Your task to perform on an android device: check data usage Image 0: 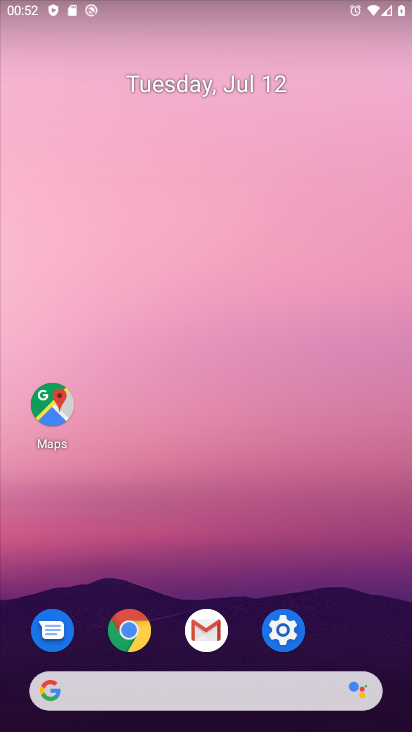
Step 0: click (288, 639)
Your task to perform on an android device: check data usage Image 1: 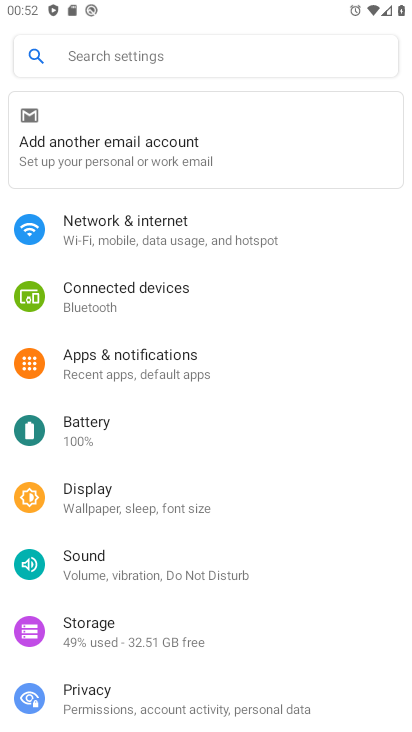
Step 1: click (117, 64)
Your task to perform on an android device: check data usage Image 2: 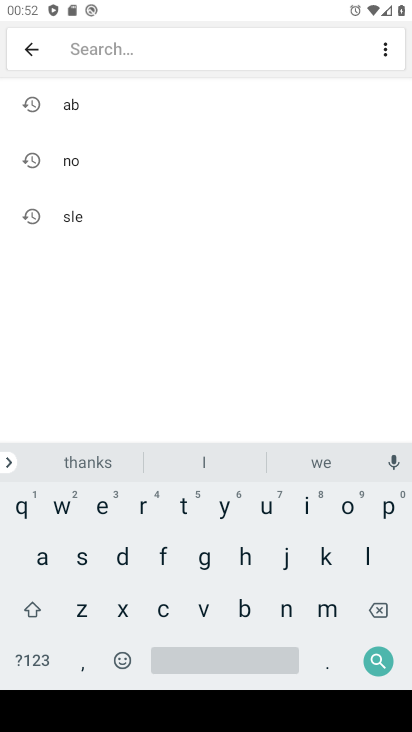
Step 2: click (122, 555)
Your task to perform on an android device: check data usage Image 3: 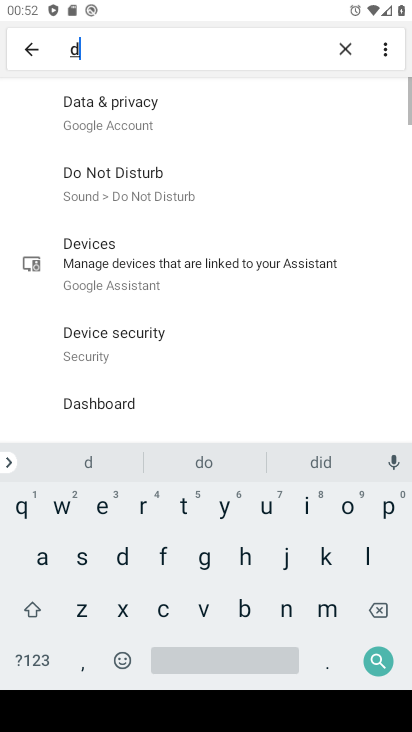
Step 3: click (43, 560)
Your task to perform on an android device: check data usage Image 4: 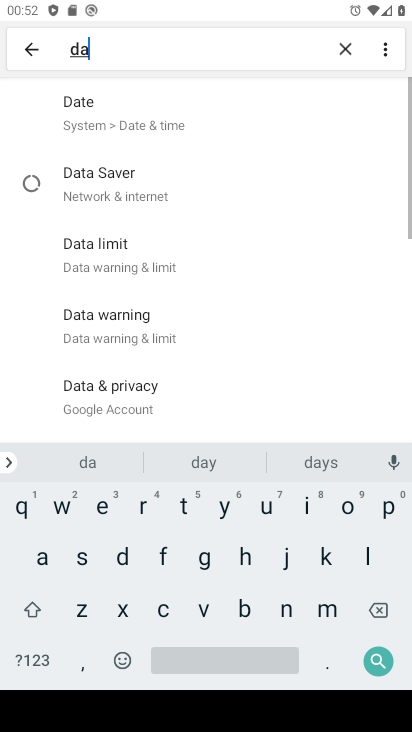
Step 4: click (187, 506)
Your task to perform on an android device: check data usage Image 5: 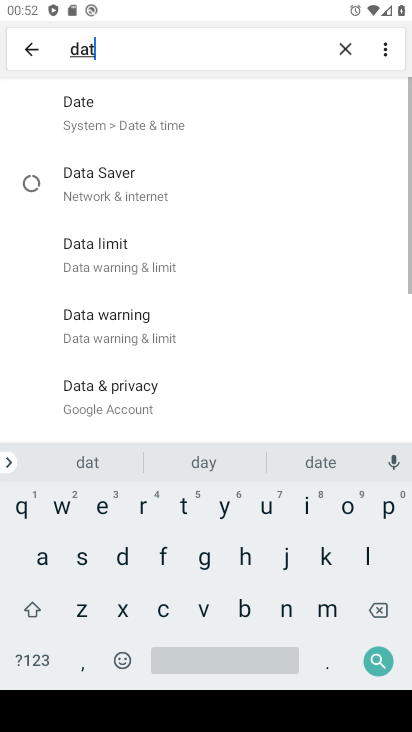
Step 5: click (48, 555)
Your task to perform on an android device: check data usage Image 6: 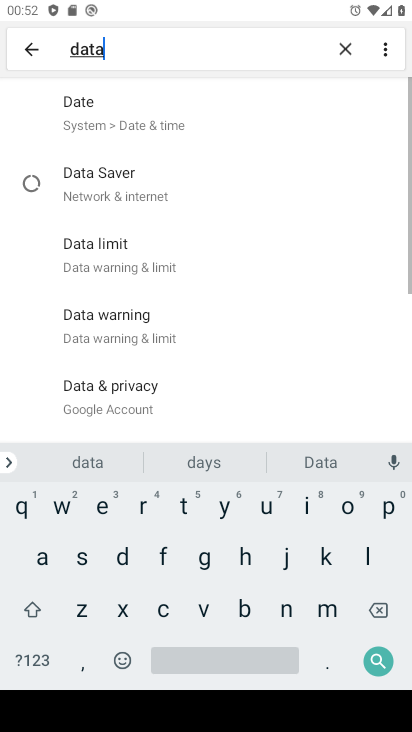
Step 6: click (48, 555)
Your task to perform on an android device: check data usage Image 7: 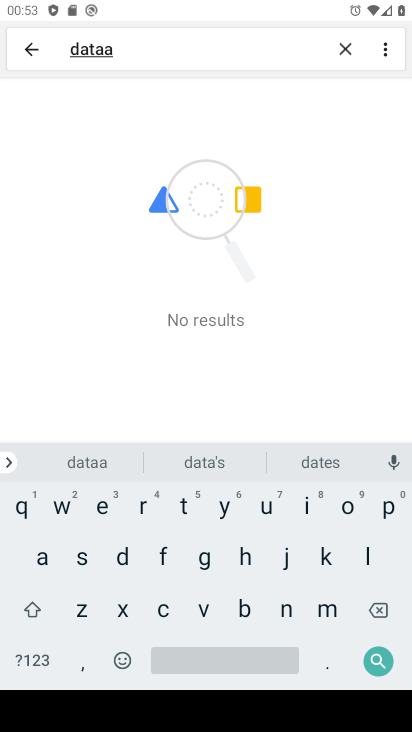
Step 7: click (378, 616)
Your task to perform on an android device: check data usage Image 8: 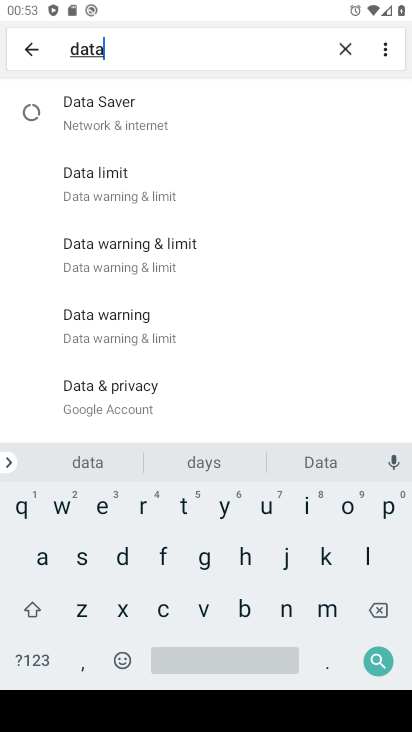
Step 8: click (239, 656)
Your task to perform on an android device: check data usage Image 9: 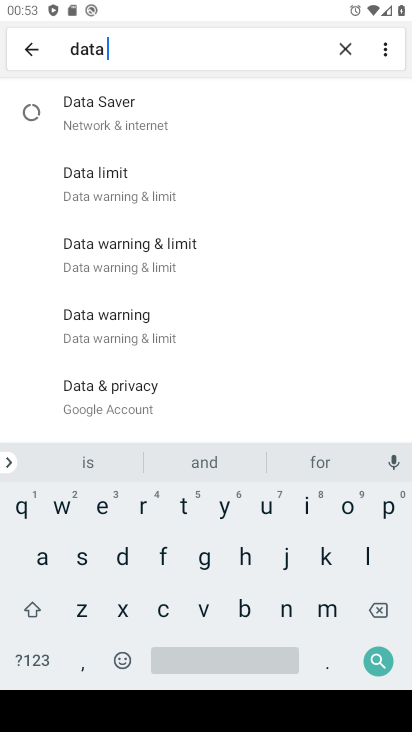
Step 9: click (269, 509)
Your task to perform on an android device: check data usage Image 10: 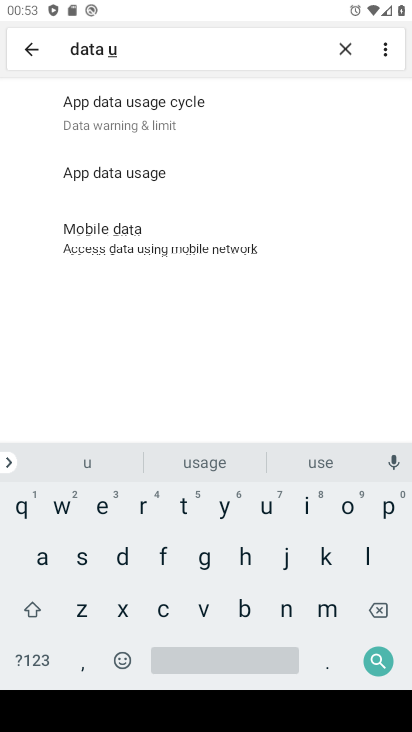
Step 10: click (78, 558)
Your task to perform on an android device: check data usage Image 11: 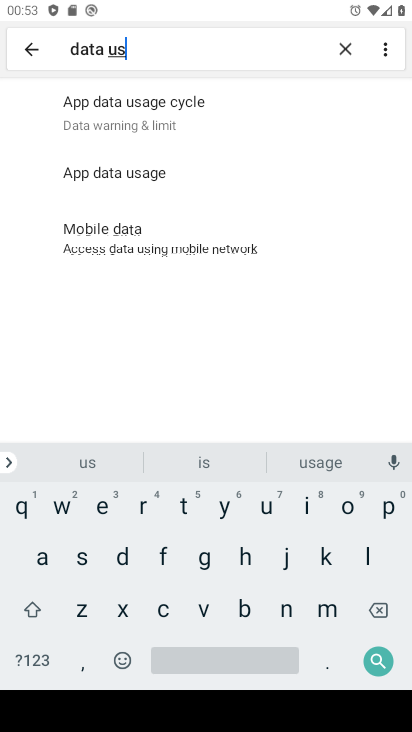
Step 11: click (129, 178)
Your task to perform on an android device: check data usage Image 12: 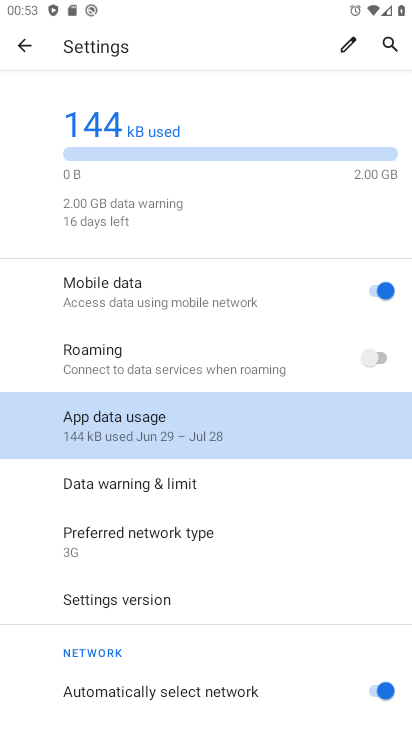
Step 12: click (220, 429)
Your task to perform on an android device: check data usage Image 13: 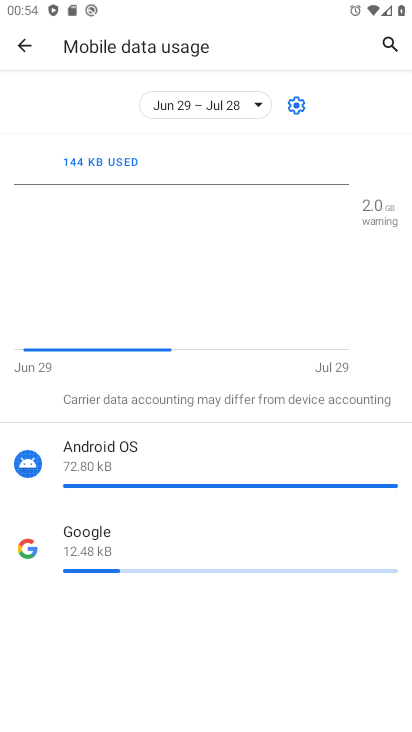
Step 13: task complete